Your task to perform on an android device: open a bookmark in the chrome app Image 0: 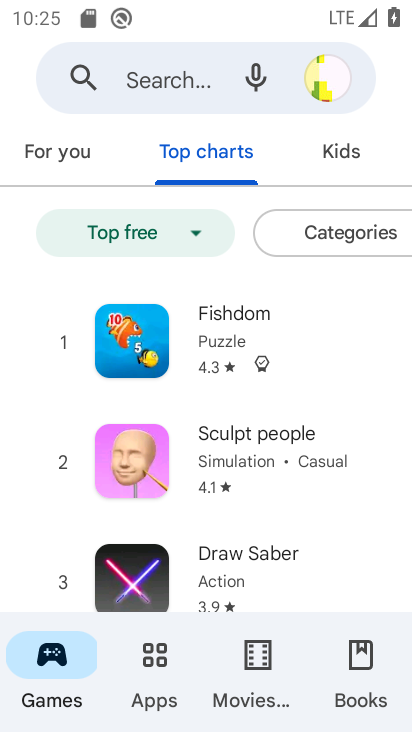
Step 0: press home button
Your task to perform on an android device: open a bookmark in the chrome app Image 1: 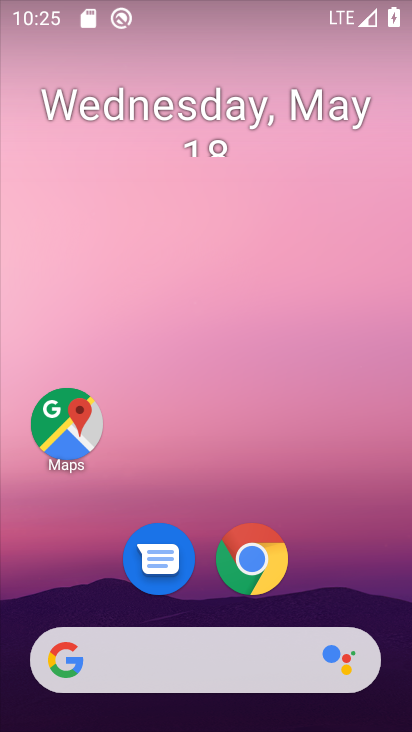
Step 1: click (263, 556)
Your task to perform on an android device: open a bookmark in the chrome app Image 2: 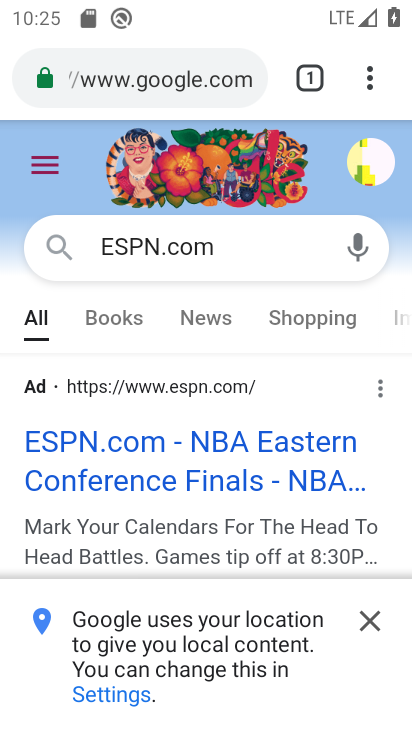
Step 2: click (368, 91)
Your task to perform on an android device: open a bookmark in the chrome app Image 3: 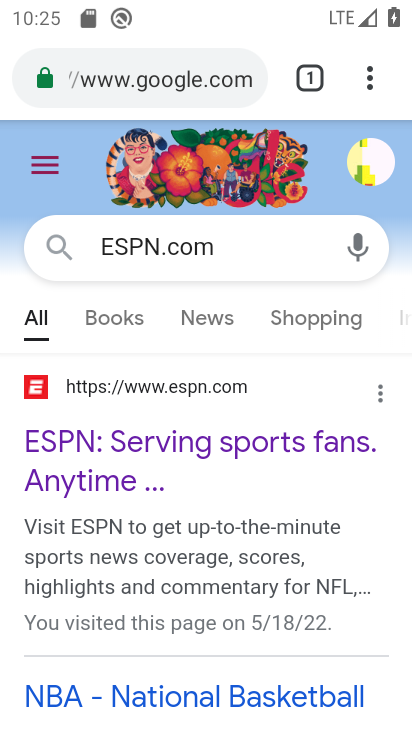
Step 3: click (368, 98)
Your task to perform on an android device: open a bookmark in the chrome app Image 4: 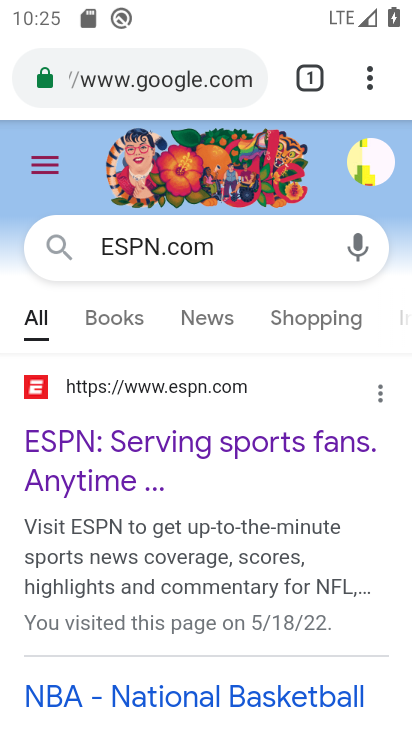
Step 4: click (368, 89)
Your task to perform on an android device: open a bookmark in the chrome app Image 5: 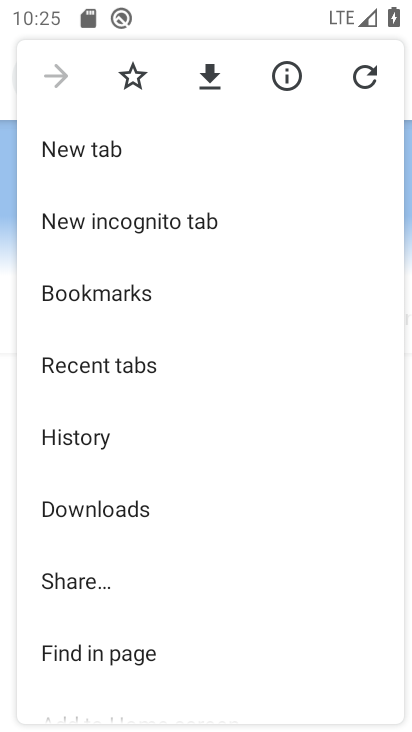
Step 5: click (104, 301)
Your task to perform on an android device: open a bookmark in the chrome app Image 6: 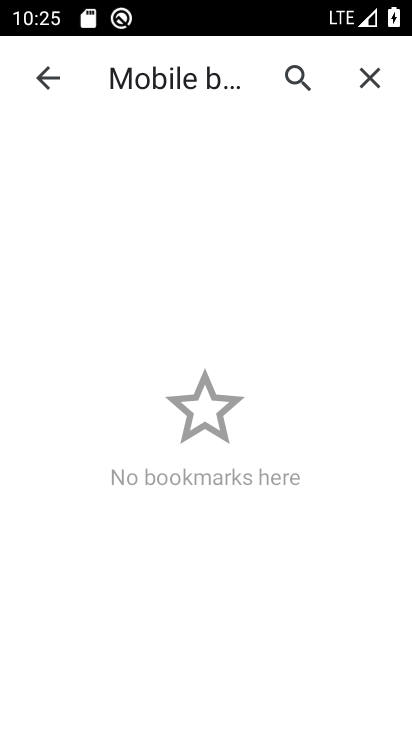
Step 6: task complete